Your task to perform on an android device: toggle priority inbox in the gmail app Image 0: 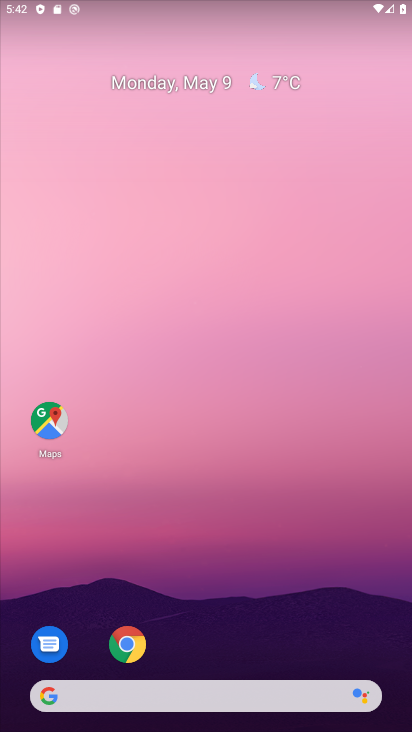
Step 0: drag from (277, 574) to (242, 41)
Your task to perform on an android device: toggle priority inbox in the gmail app Image 1: 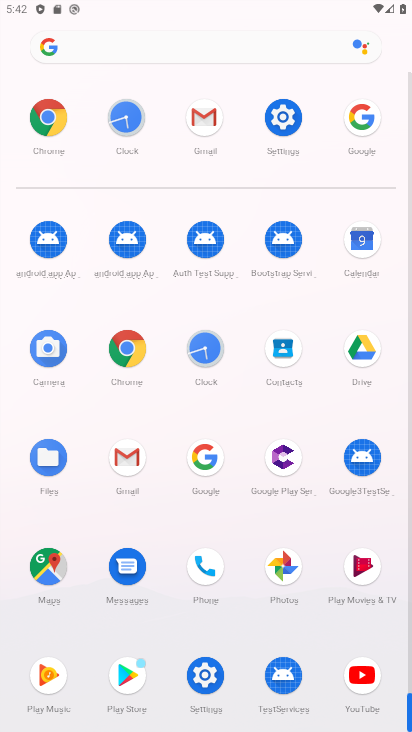
Step 1: click (119, 454)
Your task to perform on an android device: toggle priority inbox in the gmail app Image 2: 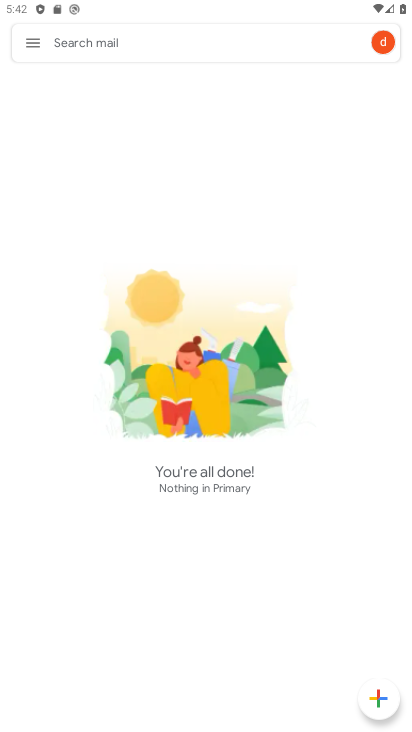
Step 2: click (33, 33)
Your task to perform on an android device: toggle priority inbox in the gmail app Image 3: 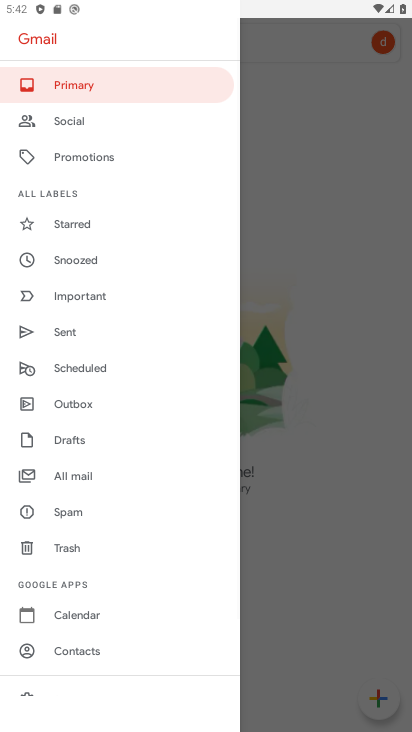
Step 3: drag from (92, 646) to (94, 318)
Your task to perform on an android device: toggle priority inbox in the gmail app Image 4: 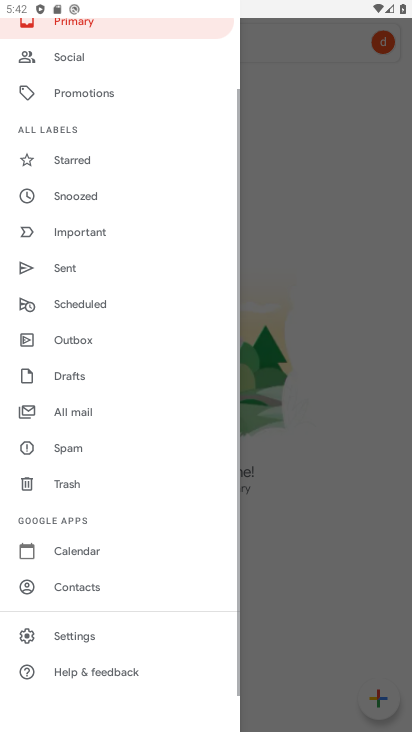
Step 4: click (80, 635)
Your task to perform on an android device: toggle priority inbox in the gmail app Image 5: 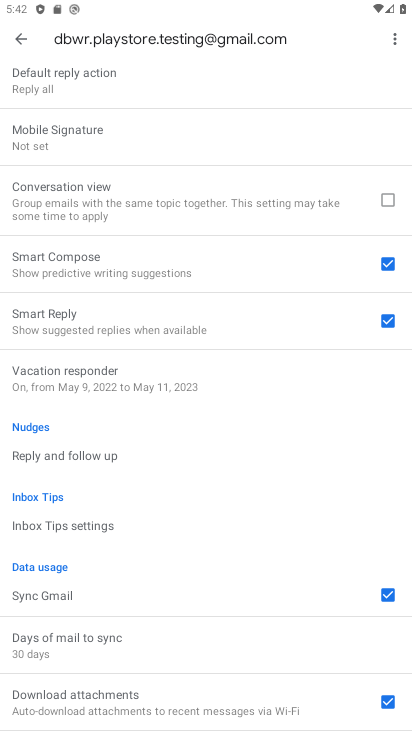
Step 5: drag from (165, 165) to (157, 679)
Your task to perform on an android device: toggle priority inbox in the gmail app Image 6: 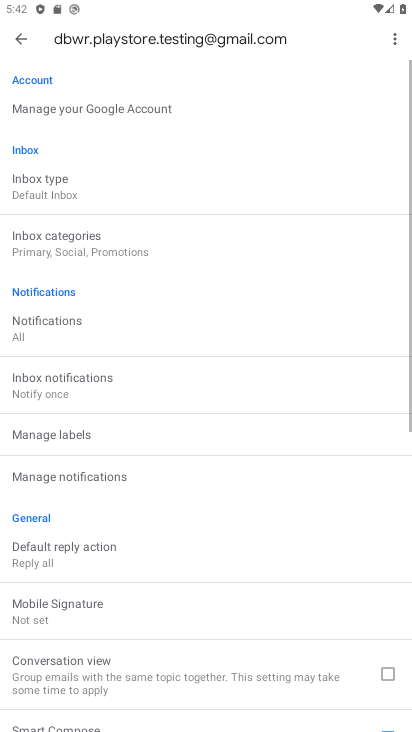
Step 6: click (47, 191)
Your task to perform on an android device: toggle priority inbox in the gmail app Image 7: 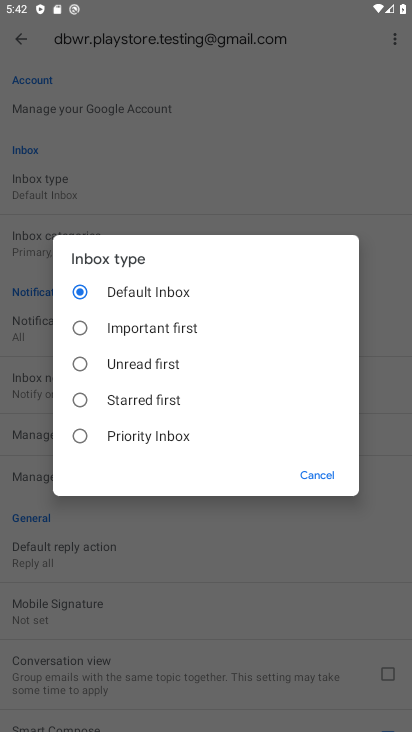
Step 7: click (76, 434)
Your task to perform on an android device: toggle priority inbox in the gmail app Image 8: 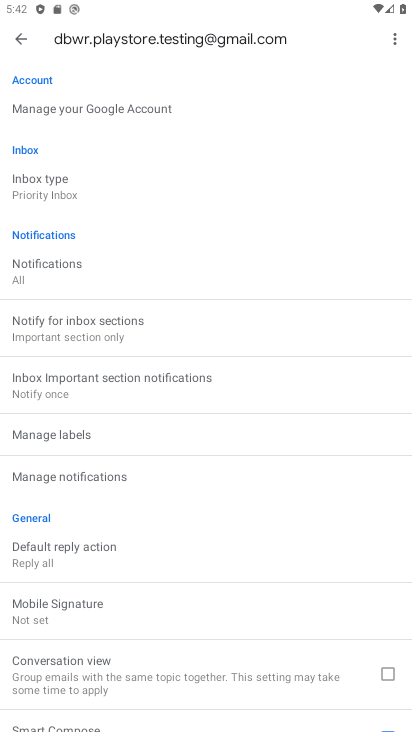
Step 8: task complete